Your task to perform on an android device: turn notification dots off Image 0: 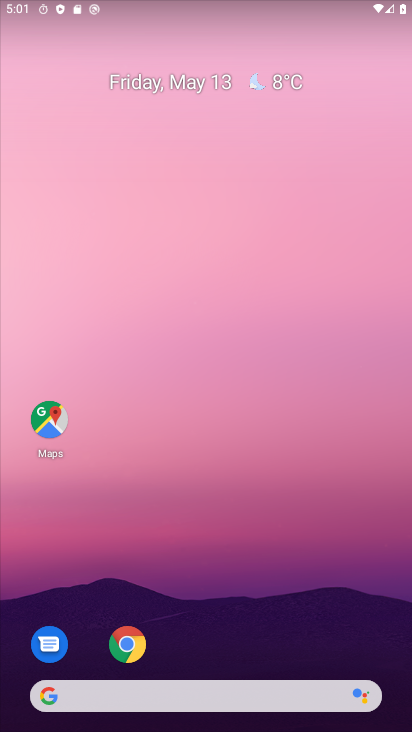
Step 0: drag from (237, 645) to (346, 141)
Your task to perform on an android device: turn notification dots off Image 1: 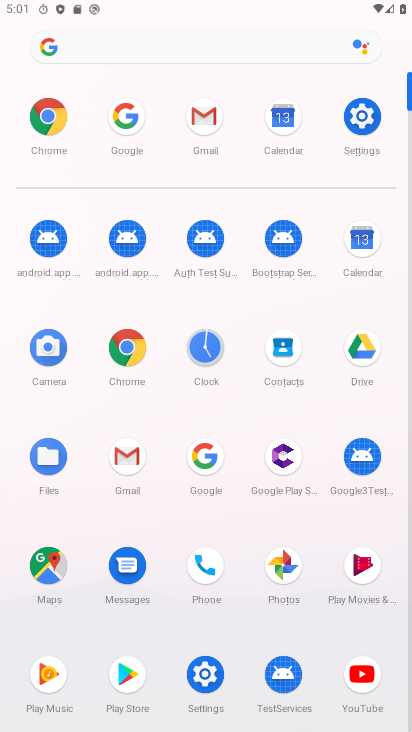
Step 1: click (355, 126)
Your task to perform on an android device: turn notification dots off Image 2: 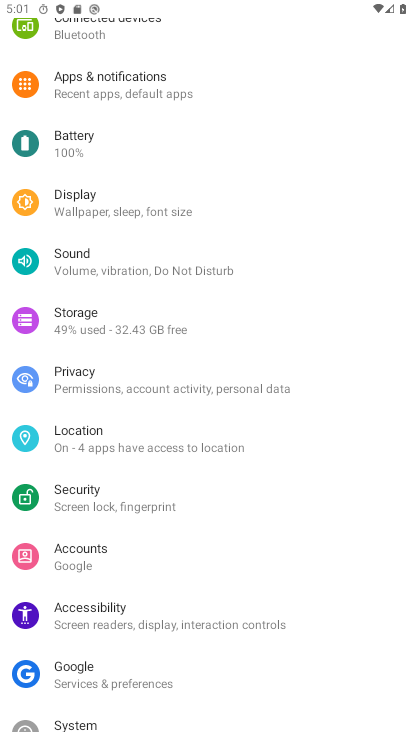
Step 2: click (150, 89)
Your task to perform on an android device: turn notification dots off Image 3: 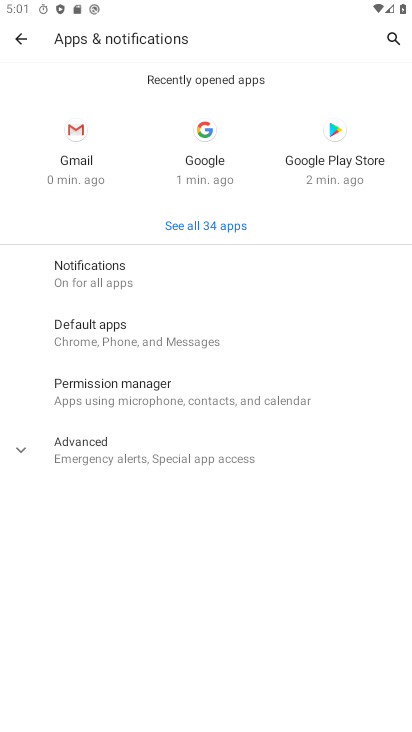
Step 3: click (143, 268)
Your task to perform on an android device: turn notification dots off Image 4: 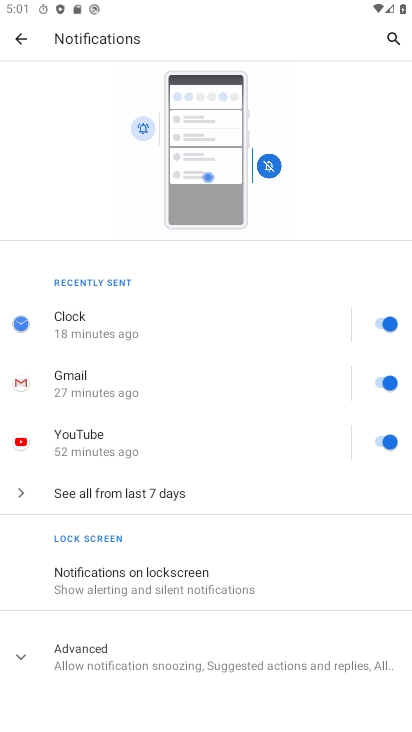
Step 4: drag from (132, 645) to (193, 302)
Your task to perform on an android device: turn notification dots off Image 5: 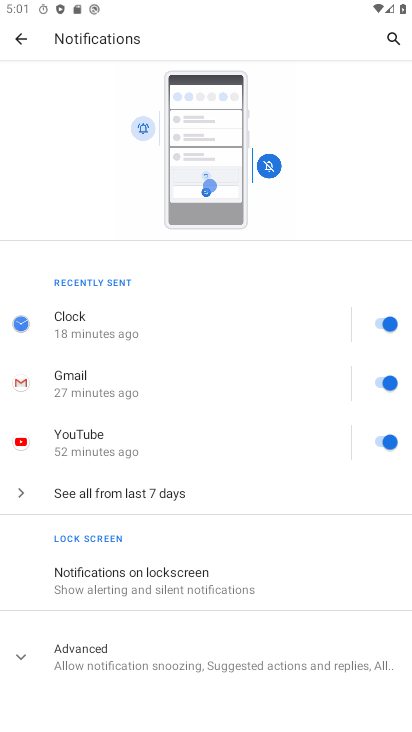
Step 5: click (130, 654)
Your task to perform on an android device: turn notification dots off Image 6: 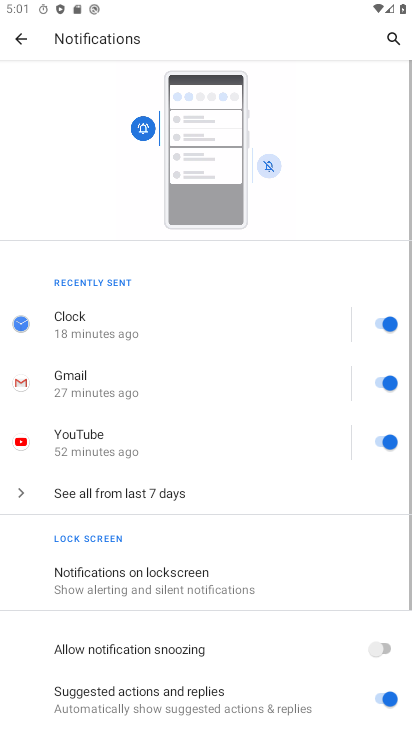
Step 6: task complete